Your task to perform on an android device: open a bookmark in the chrome app Image 0: 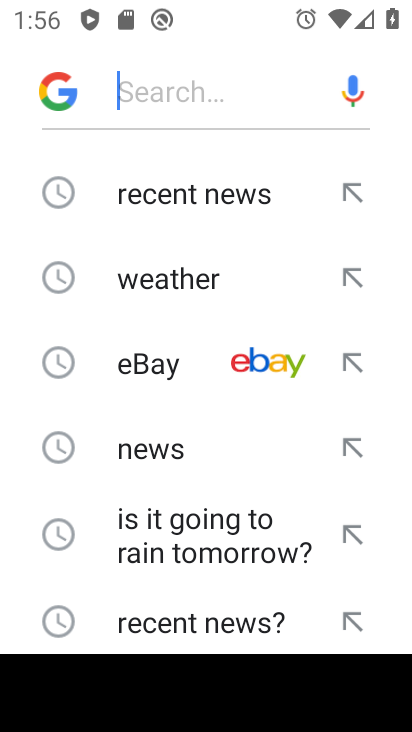
Step 0: press back button
Your task to perform on an android device: open a bookmark in the chrome app Image 1: 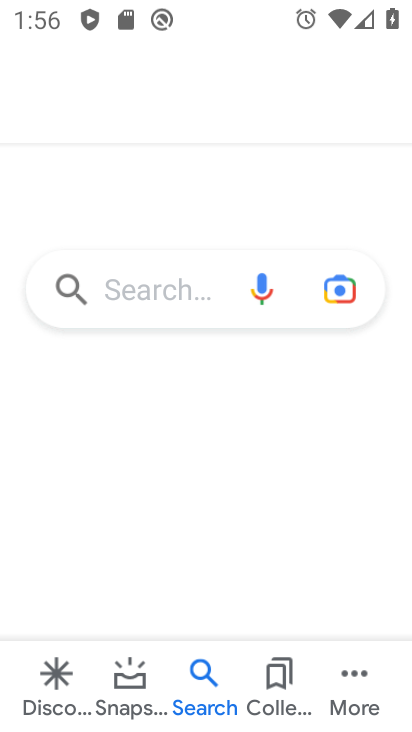
Step 1: press back button
Your task to perform on an android device: open a bookmark in the chrome app Image 2: 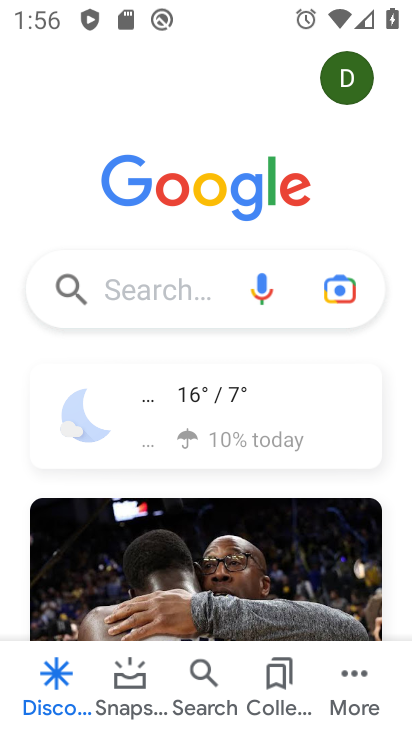
Step 2: press back button
Your task to perform on an android device: open a bookmark in the chrome app Image 3: 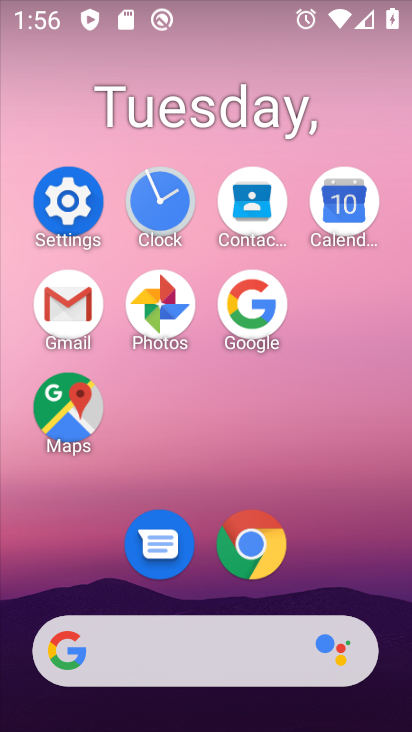
Step 3: click (266, 547)
Your task to perform on an android device: open a bookmark in the chrome app Image 4: 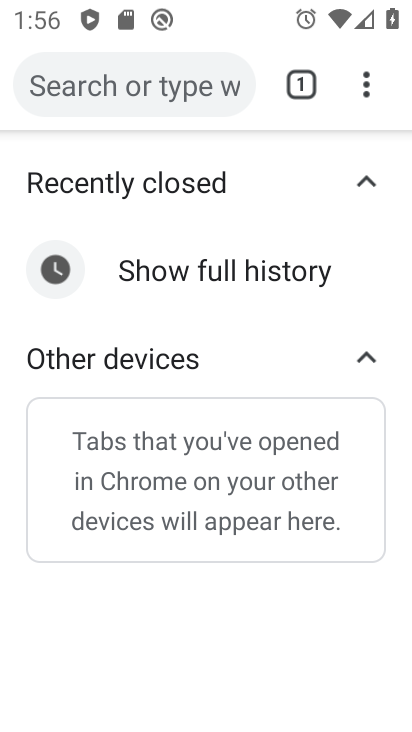
Step 4: click (372, 77)
Your task to perform on an android device: open a bookmark in the chrome app Image 5: 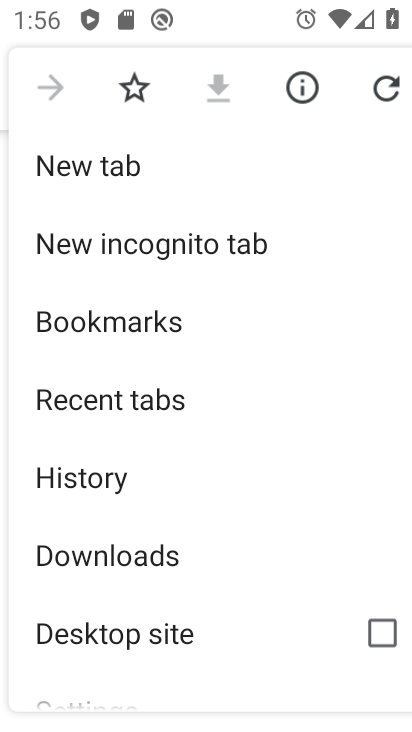
Step 5: click (163, 307)
Your task to perform on an android device: open a bookmark in the chrome app Image 6: 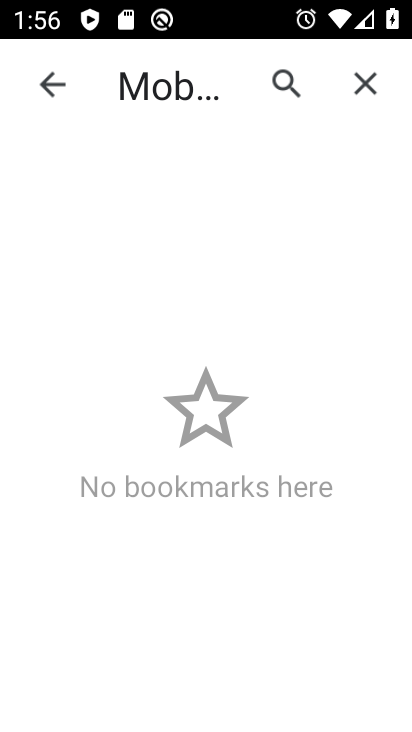
Step 6: task complete